Your task to perform on an android device: Do I have any events this weekend? Image 0: 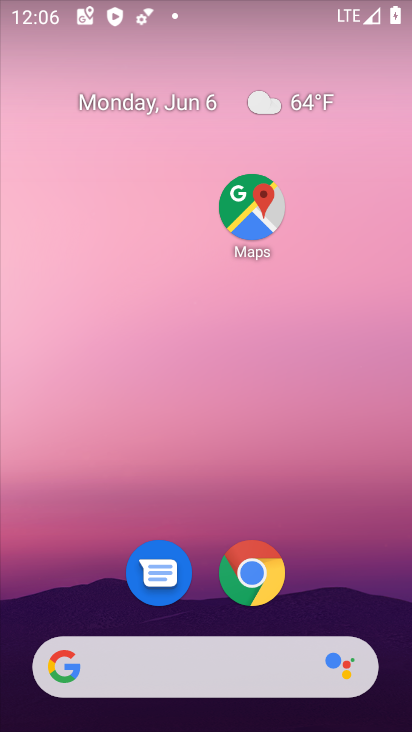
Step 0: drag from (19, 389) to (109, 156)
Your task to perform on an android device: Do I have any events this weekend? Image 1: 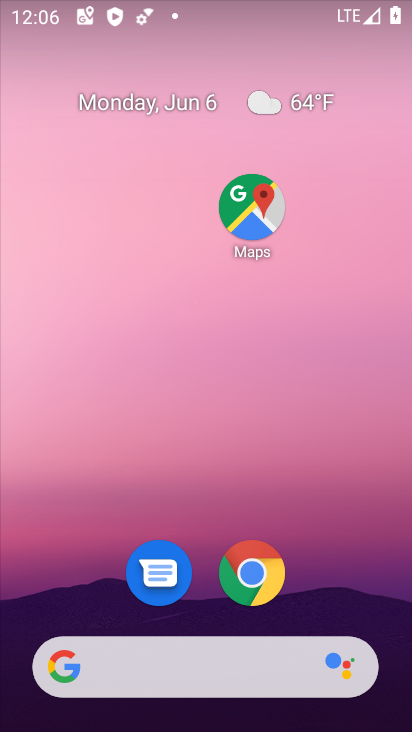
Step 1: drag from (6, 639) to (224, 201)
Your task to perform on an android device: Do I have any events this weekend? Image 2: 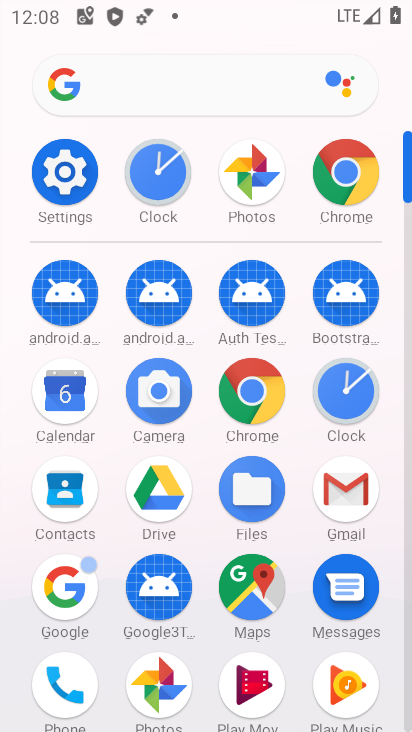
Step 2: drag from (194, 249) to (214, 78)
Your task to perform on an android device: Do I have any events this weekend? Image 3: 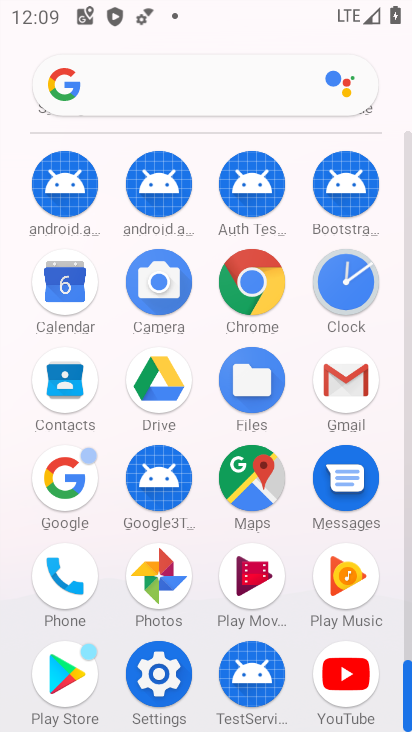
Step 3: click (63, 305)
Your task to perform on an android device: Do I have any events this weekend? Image 4: 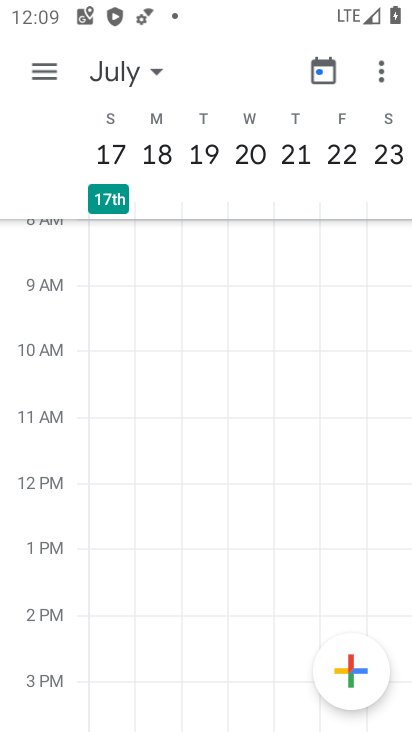
Step 4: click (153, 76)
Your task to perform on an android device: Do I have any events this weekend? Image 5: 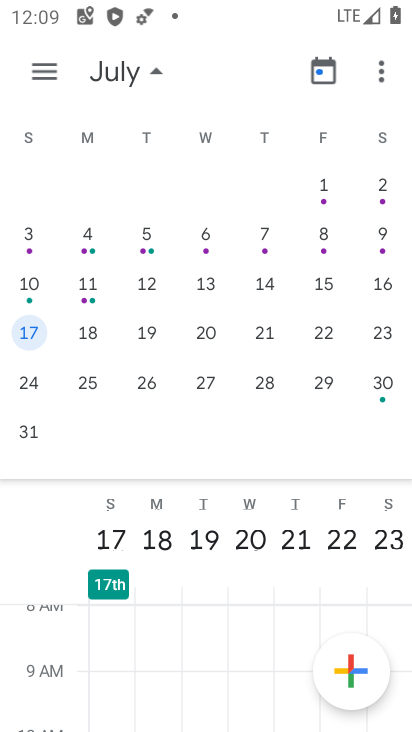
Step 5: drag from (45, 314) to (403, 312)
Your task to perform on an android device: Do I have any events this weekend? Image 6: 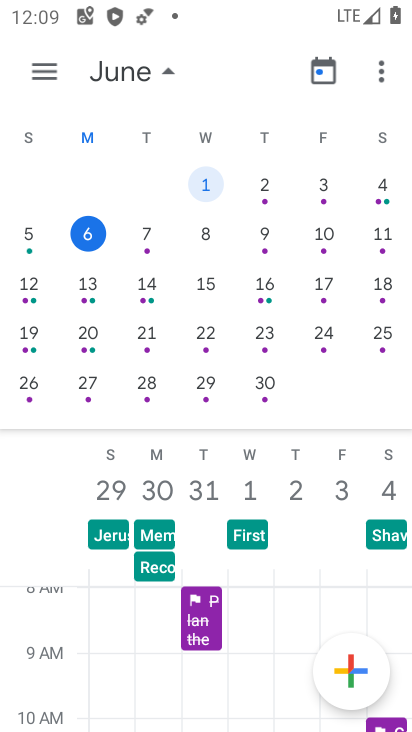
Step 6: click (92, 239)
Your task to perform on an android device: Do I have any events this weekend? Image 7: 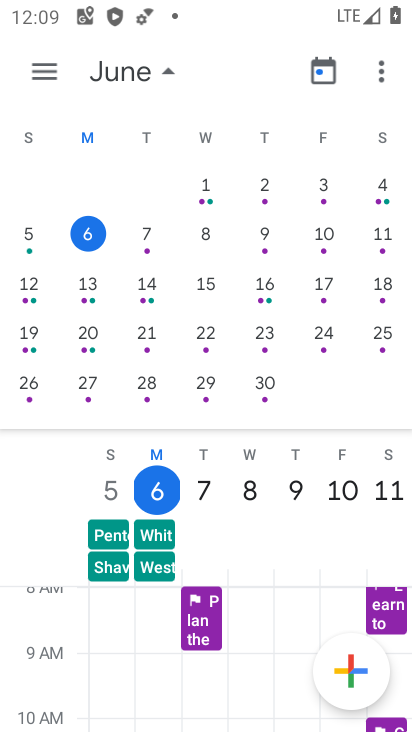
Step 7: click (157, 64)
Your task to perform on an android device: Do I have any events this weekend? Image 8: 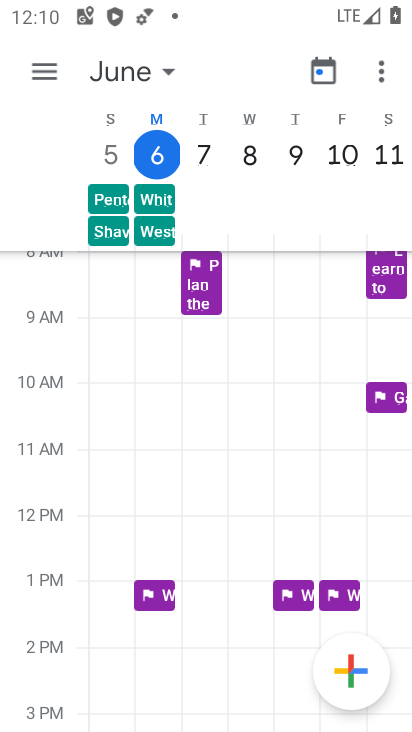
Step 8: task complete